Your task to perform on an android device: Go to eBay Image 0: 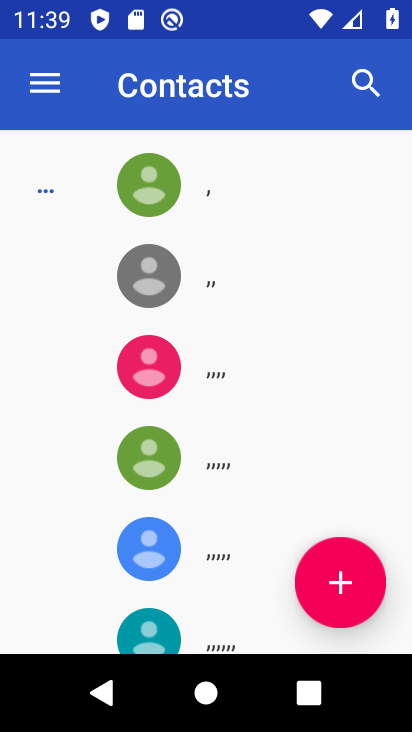
Step 0: press home button
Your task to perform on an android device: Go to eBay Image 1: 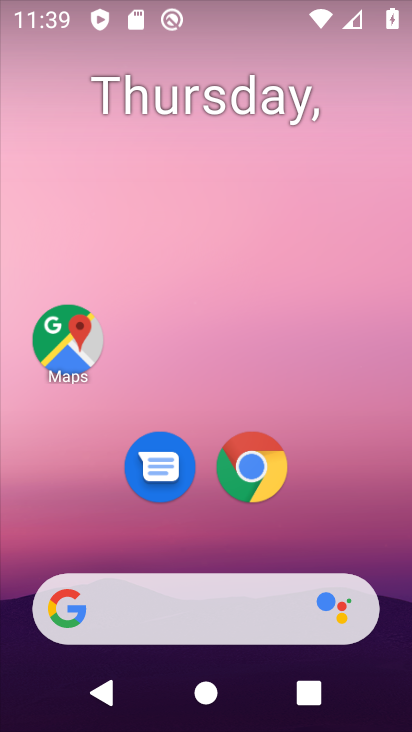
Step 1: click (254, 481)
Your task to perform on an android device: Go to eBay Image 2: 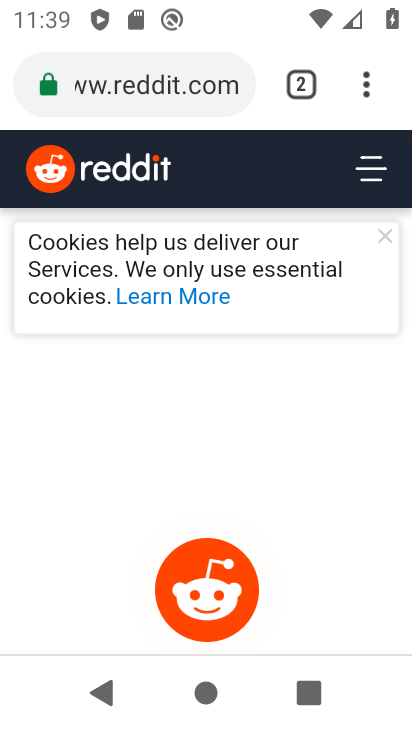
Step 2: click (85, 90)
Your task to perform on an android device: Go to eBay Image 3: 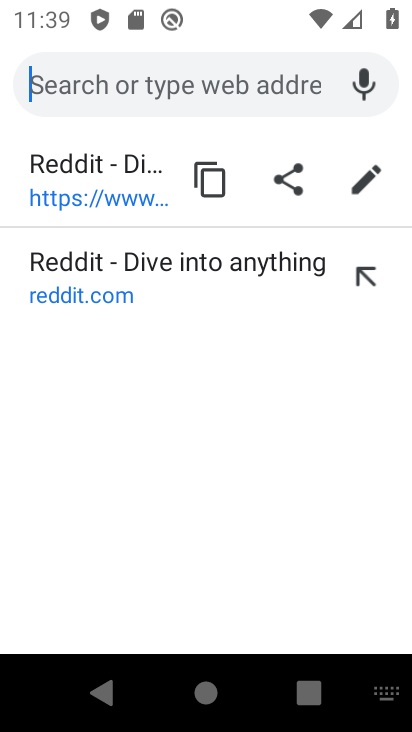
Step 3: click (85, 90)
Your task to perform on an android device: Go to eBay Image 4: 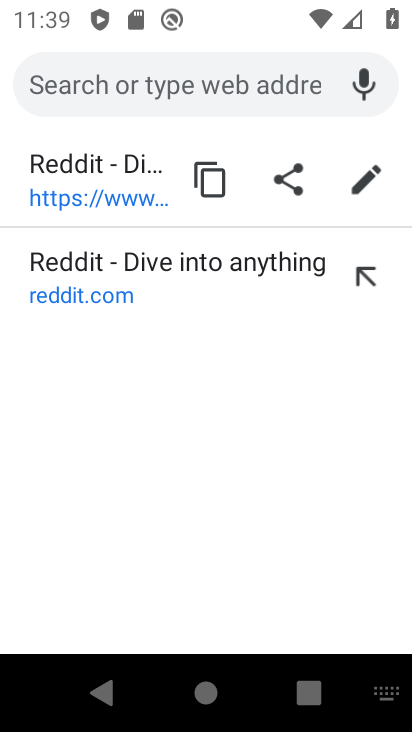
Step 4: type "ebay"
Your task to perform on an android device: Go to eBay Image 5: 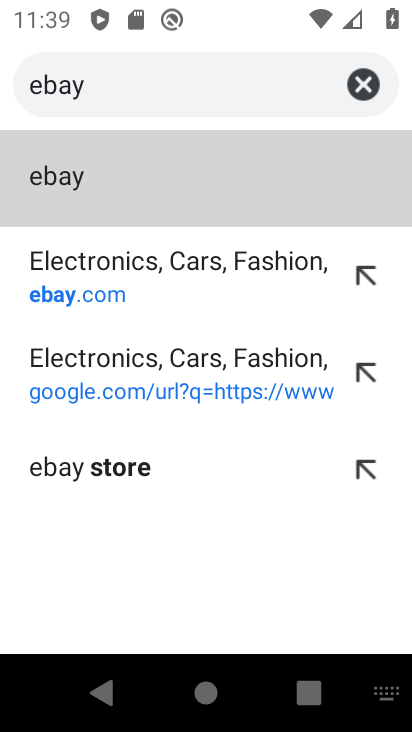
Step 5: click (56, 178)
Your task to perform on an android device: Go to eBay Image 6: 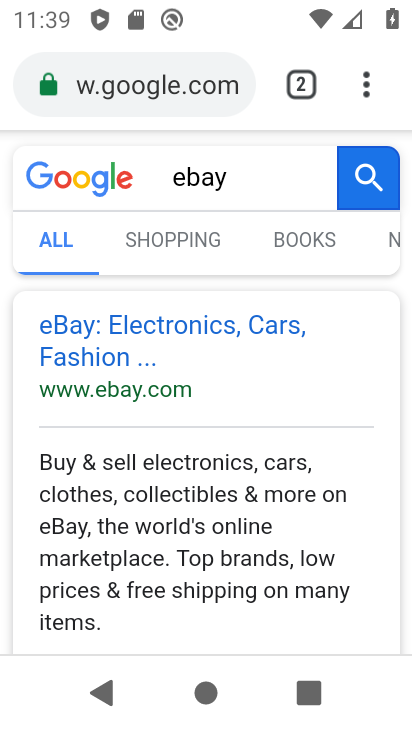
Step 6: click (47, 359)
Your task to perform on an android device: Go to eBay Image 7: 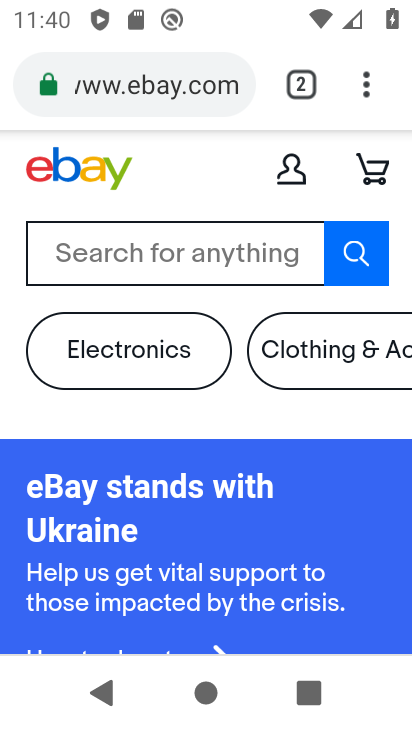
Step 7: task complete